Your task to perform on an android device: Open Google Chrome and click the shortcut for Amazon.com Image 0: 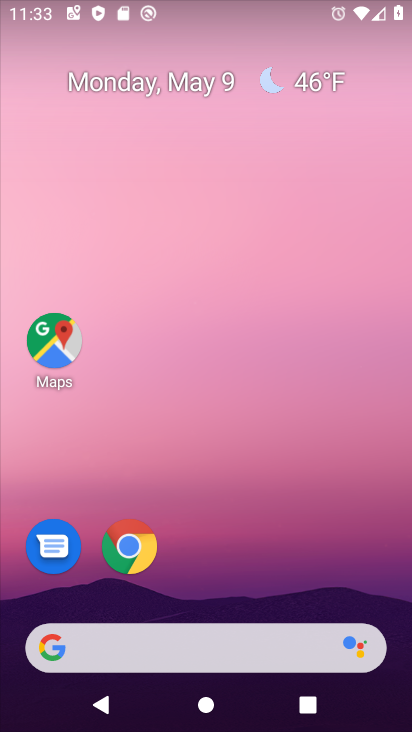
Step 0: click (132, 555)
Your task to perform on an android device: Open Google Chrome and click the shortcut for Amazon.com Image 1: 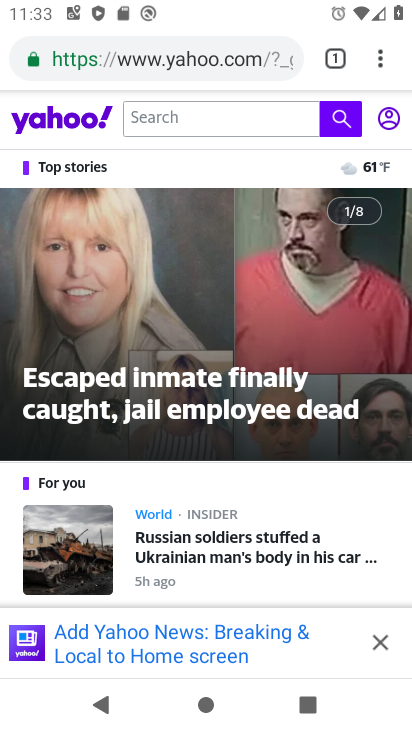
Step 1: click (383, 56)
Your task to perform on an android device: Open Google Chrome and click the shortcut for Amazon.com Image 2: 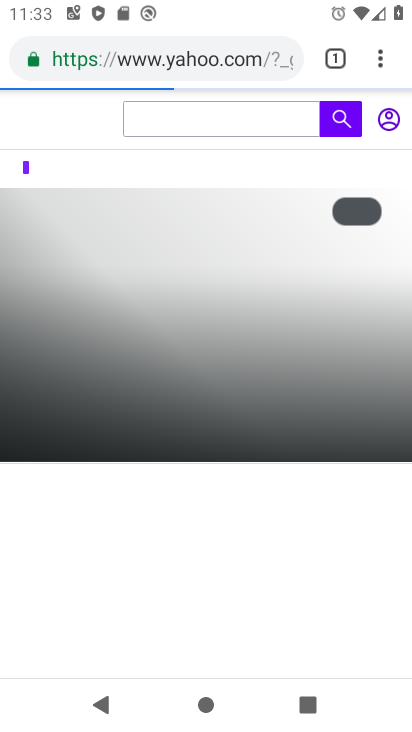
Step 2: click (339, 62)
Your task to perform on an android device: Open Google Chrome and click the shortcut for Amazon.com Image 3: 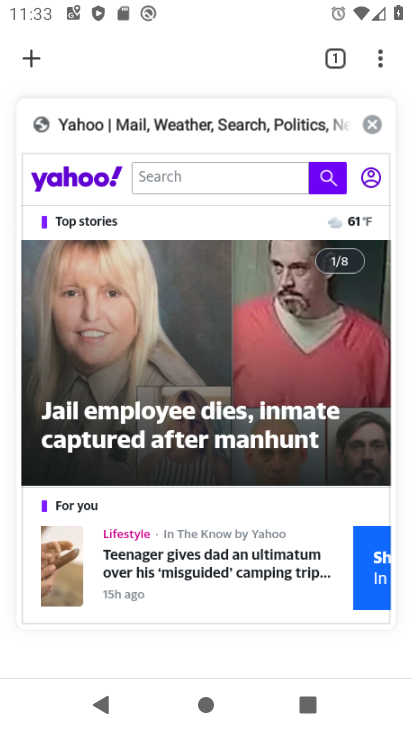
Step 3: click (376, 125)
Your task to perform on an android device: Open Google Chrome and click the shortcut for Amazon.com Image 4: 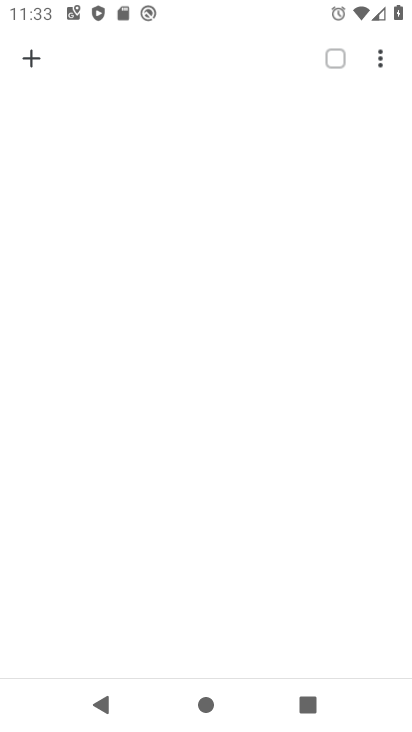
Step 4: click (380, 61)
Your task to perform on an android device: Open Google Chrome and click the shortcut for Amazon.com Image 5: 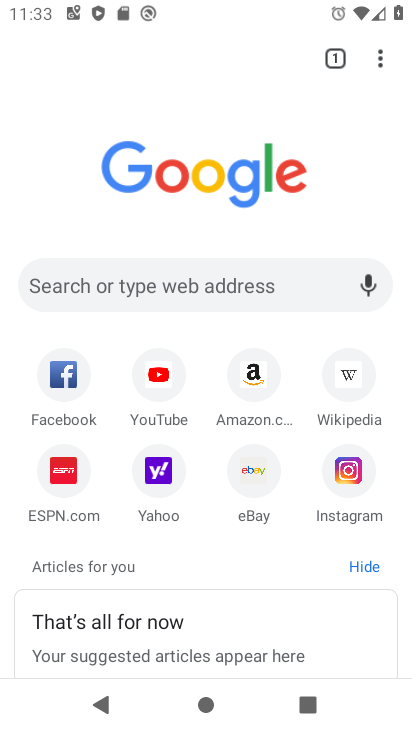
Step 5: click (380, 61)
Your task to perform on an android device: Open Google Chrome and click the shortcut for Amazon.com Image 6: 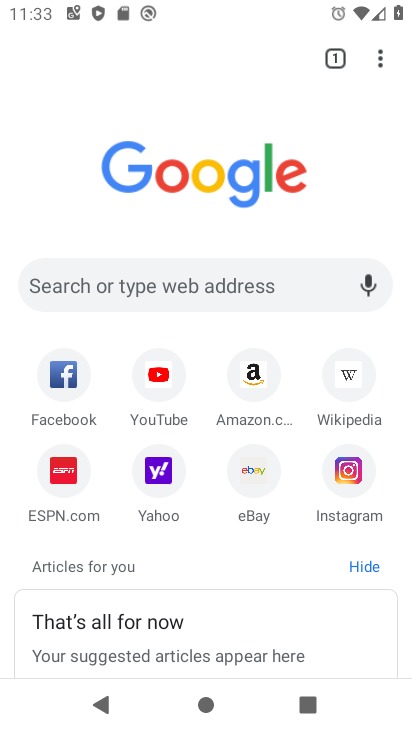
Step 6: click (91, 86)
Your task to perform on an android device: Open Google Chrome and click the shortcut for Amazon.com Image 7: 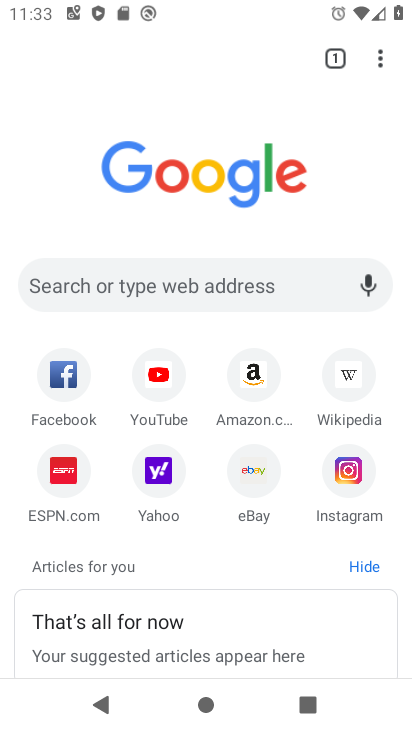
Step 7: click (252, 388)
Your task to perform on an android device: Open Google Chrome and click the shortcut for Amazon.com Image 8: 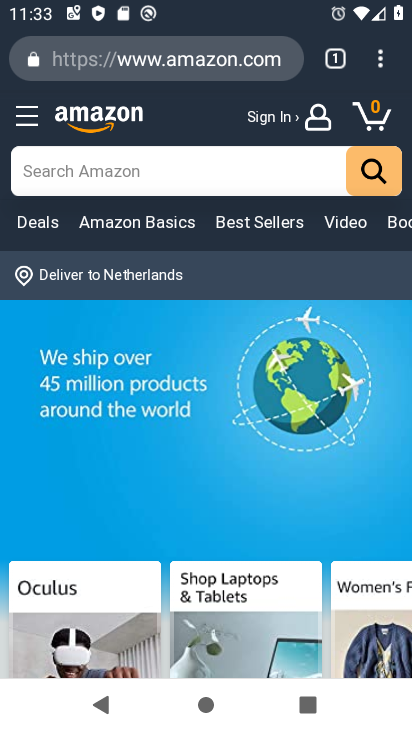
Step 8: task complete